Your task to perform on an android device: add a contact Image 0: 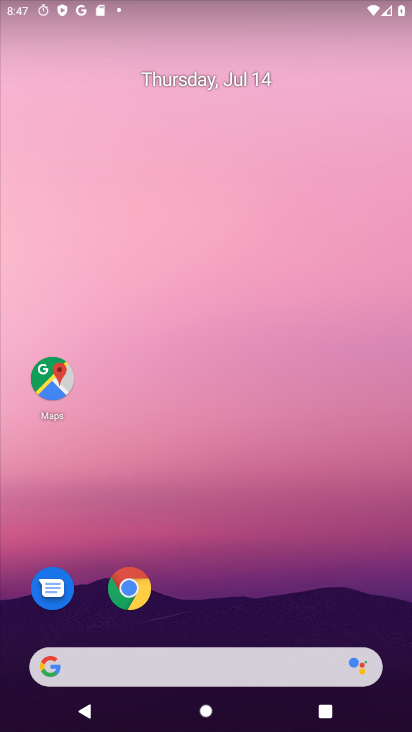
Step 0: drag from (260, 615) to (390, 175)
Your task to perform on an android device: add a contact Image 1: 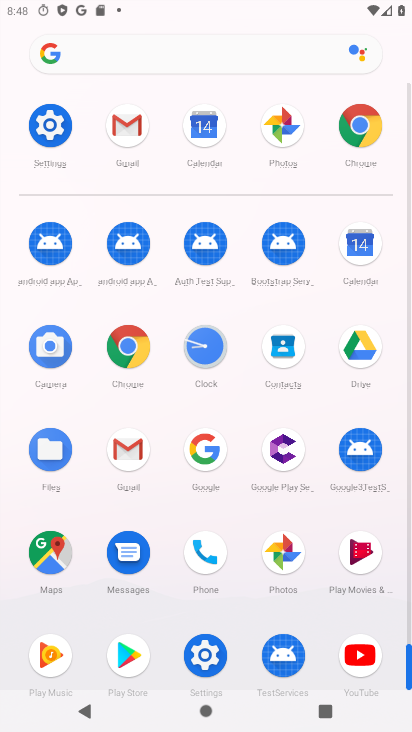
Step 1: click (282, 338)
Your task to perform on an android device: add a contact Image 2: 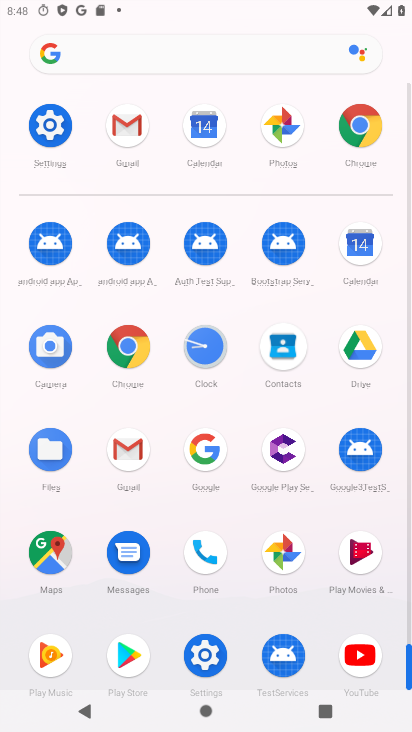
Step 2: click (282, 339)
Your task to perform on an android device: add a contact Image 3: 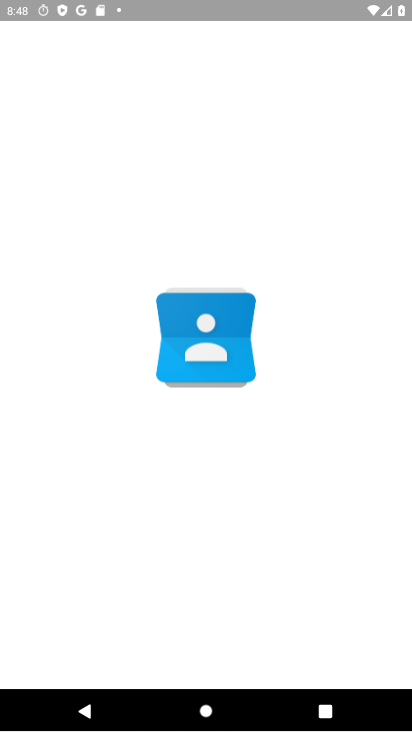
Step 3: click (280, 340)
Your task to perform on an android device: add a contact Image 4: 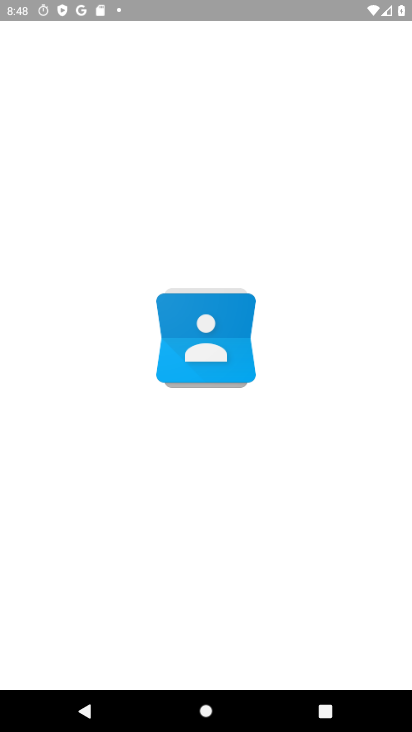
Step 4: click (287, 345)
Your task to perform on an android device: add a contact Image 5: 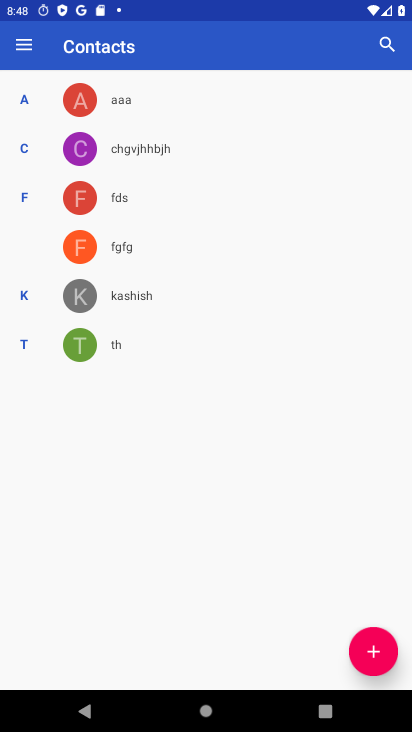
Step 5: click (365, 652)
Your task to perform on an android device: add a contact Image 6: 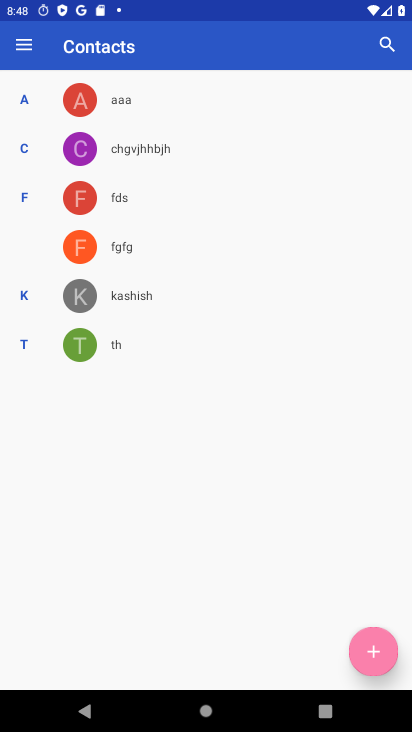
Step 6: click (366, 652)
Your task to perform on an android device: add a contact Image 7: 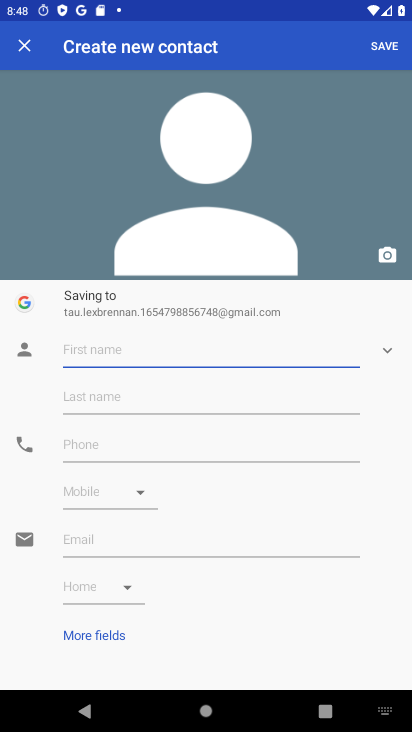
Step 7: type "ctfcgvhg"
Your task to perform on an android device: add a contact Image 8: 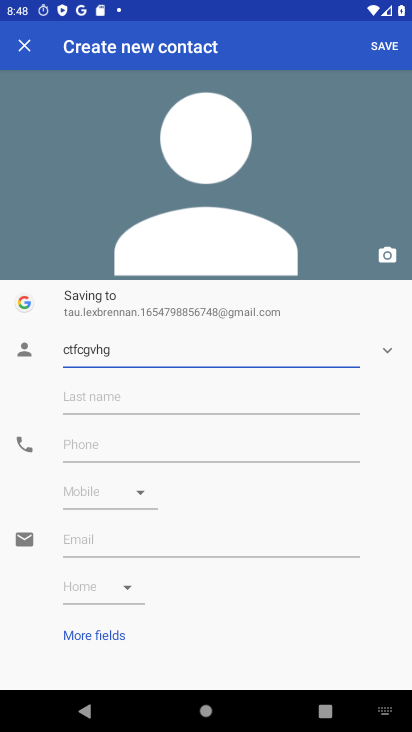
Step 8: click (80, 448)
Your task to perform on an android device: add a contact Image 9: 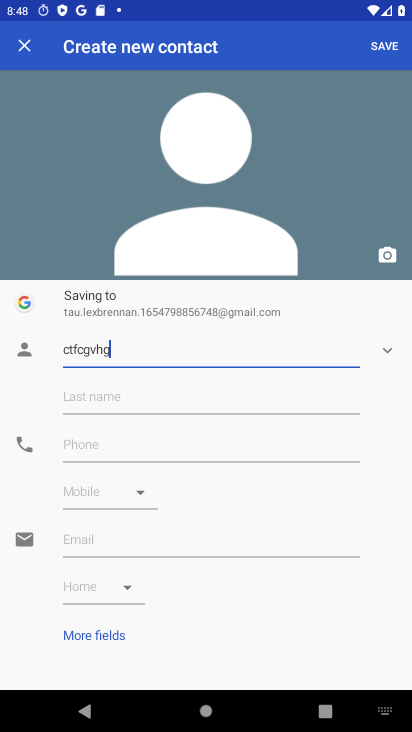
Step 9: click (80, 448)
Your task to perform on an android device: add a contact Image 10: 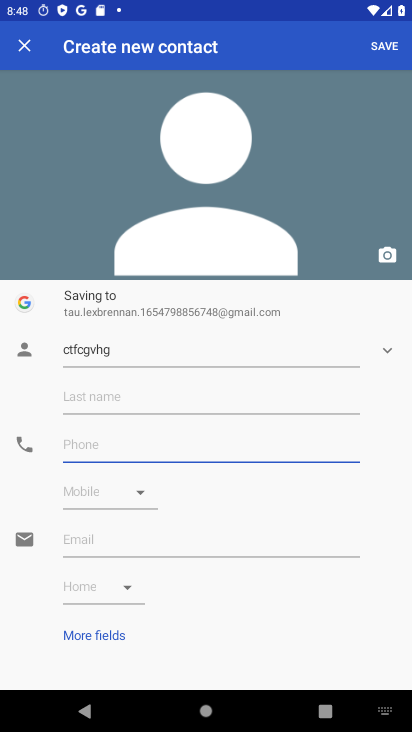
Step 10: type "7876676576576"
Your task to perform on an android device: add a contact Image 11: 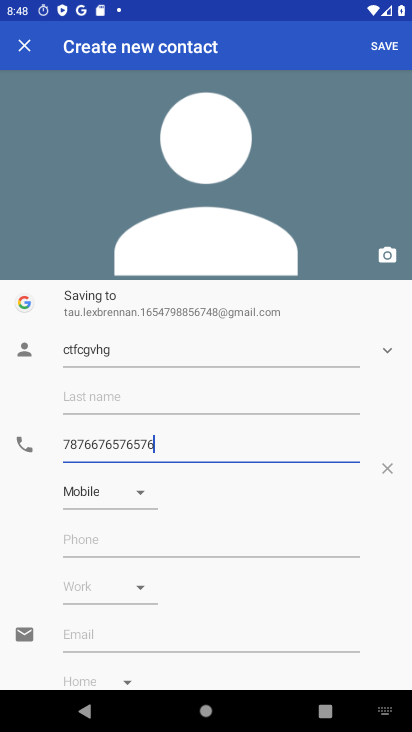
Step 11: click (374, 42)
Your task to perform on an android device: add a contact Image 12: 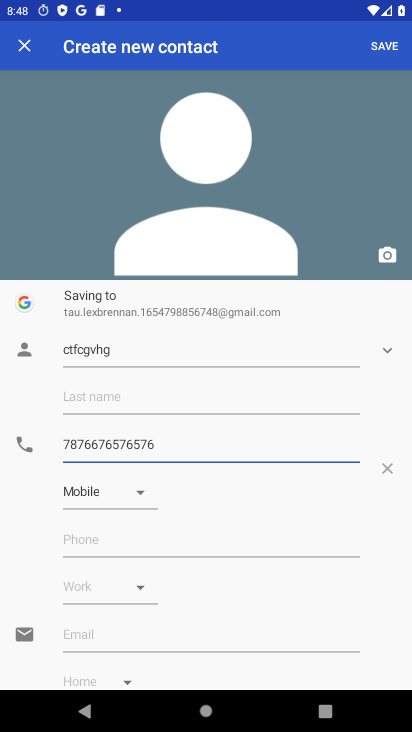
Step 12: click (374, 43)
Your task to perform on an android device: add a contact Image 13: 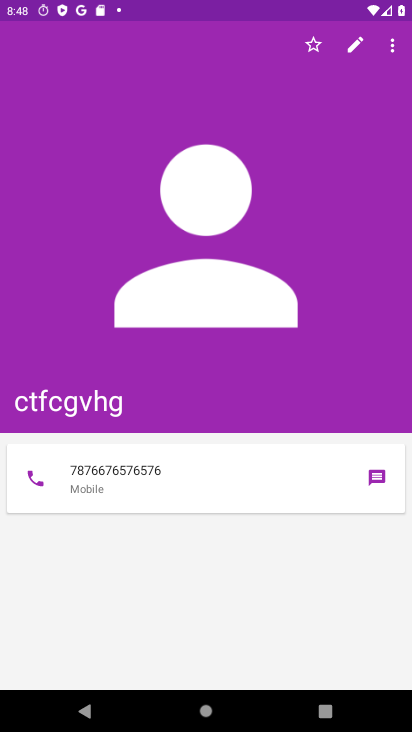
Step 13: task complete